Your task to perform on an android device: Open Reddit.com Image 0: 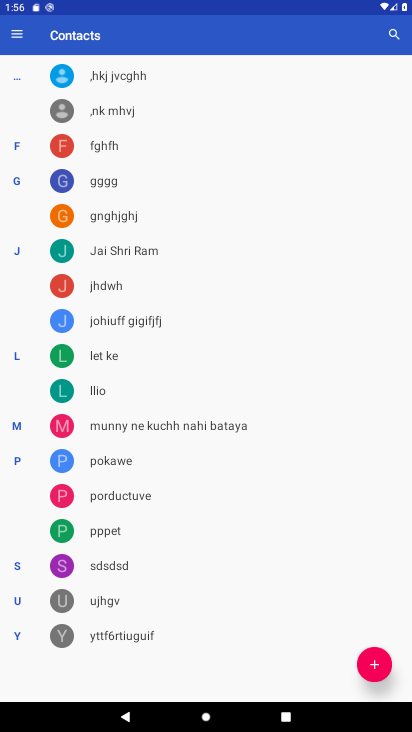
Step 0: press home button
Your task to perform on an android device: Open Reddit.com Image 1: 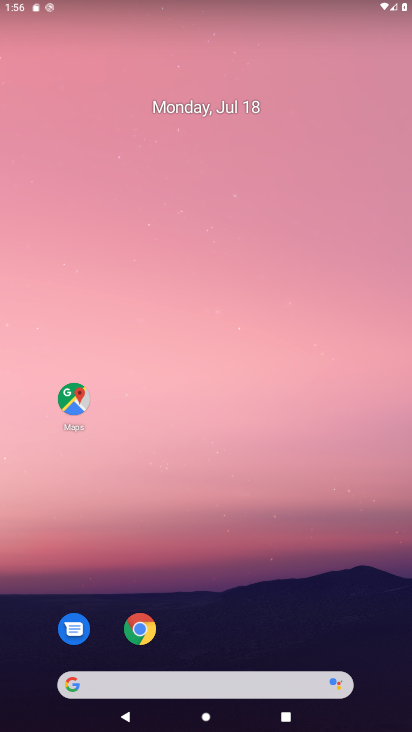
Step 1: click (134, 636)
Your task to perform on an android device: Open Reddit.com Image 2: 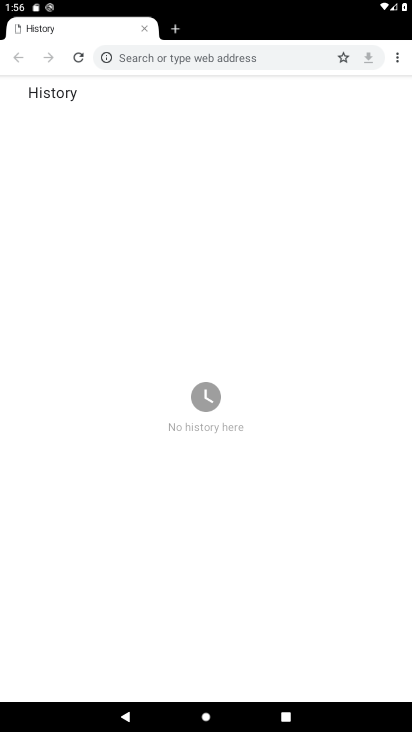
Step 2: click (168, 58)
Your task to perform on an android device: Open Reddit.com Image 3: 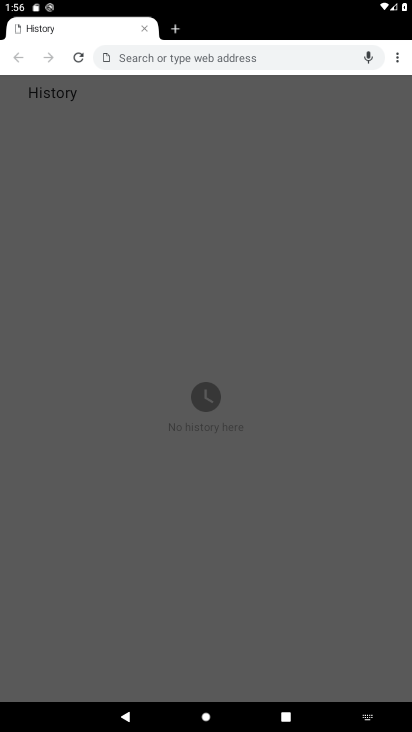
Step 3: type "www.reddit.com"
Your task to perform on an android device: Open Reddit.com Image 4: 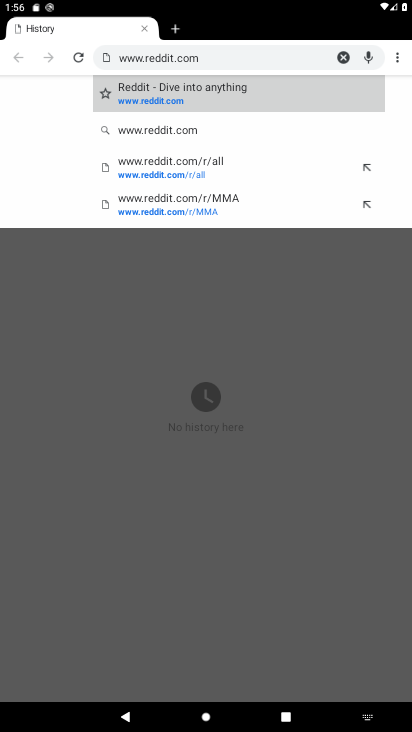
Step 4: click (172, 96)
Your task to perform on an android device: Open Reddit.com Image 5: 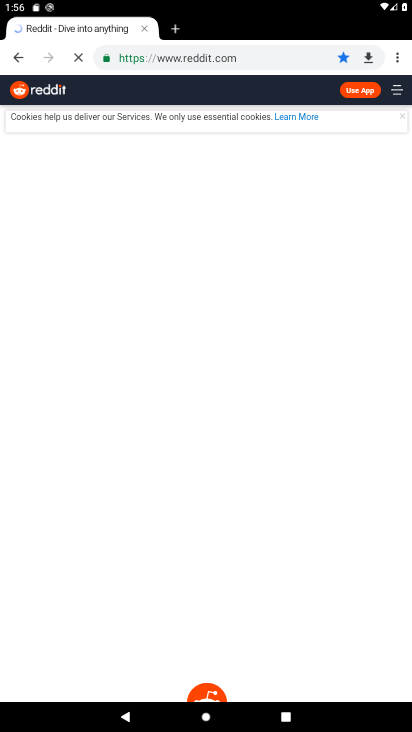
Step 5: task complete